Your task to perform on an android device: Open Google Maps and go to "Timeline" Image 0: 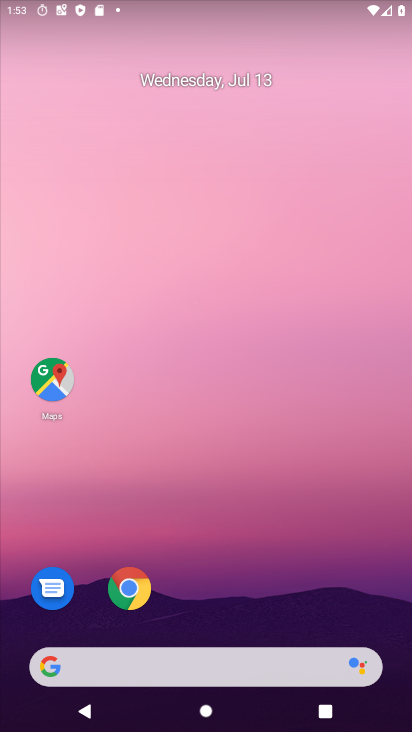
Step 0: click (43, 385)
Your task to perform on an android device: Open Google Maps and go to "Timeline" Image 1: 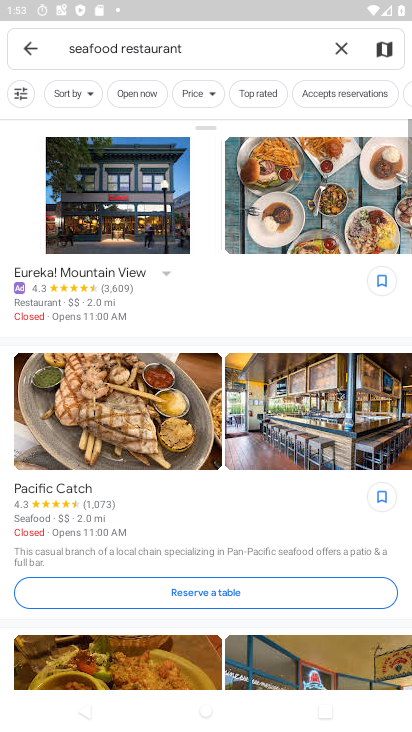
Step 1: click (30, 47)
Your task to perform on an android device: Open Google Maps and go to "Timeline" Image 2: 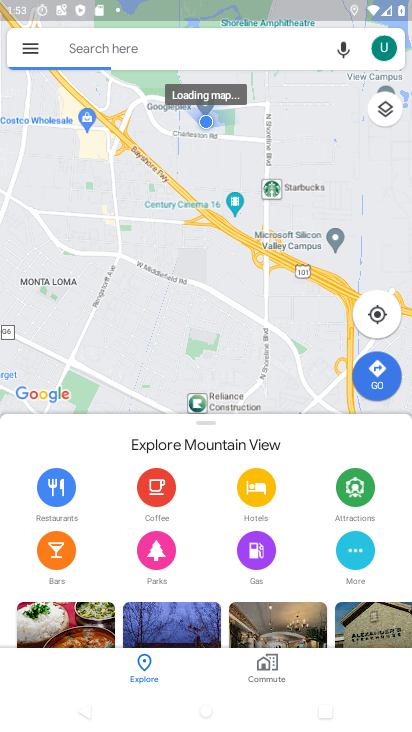
Step 2: click (21, 52)
Your task to perform on an android device: Open Google Maps and go to "Timeline" Image 3: 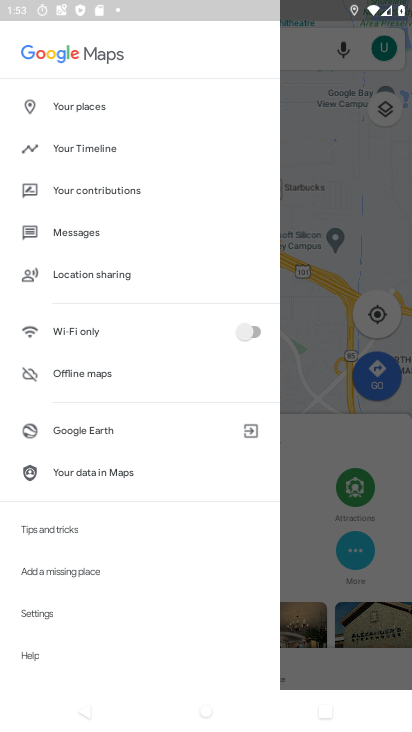
Step 3: click (73, 162)
Your task to perform on an android device: Open Google Maps and go to "Timeline" Image 4: 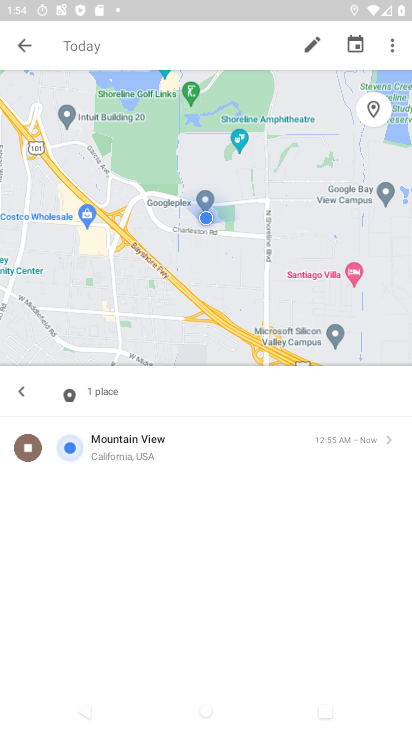
Step 4: task complete